Your task to perform on an android device: Search for a new hair product Image 0: 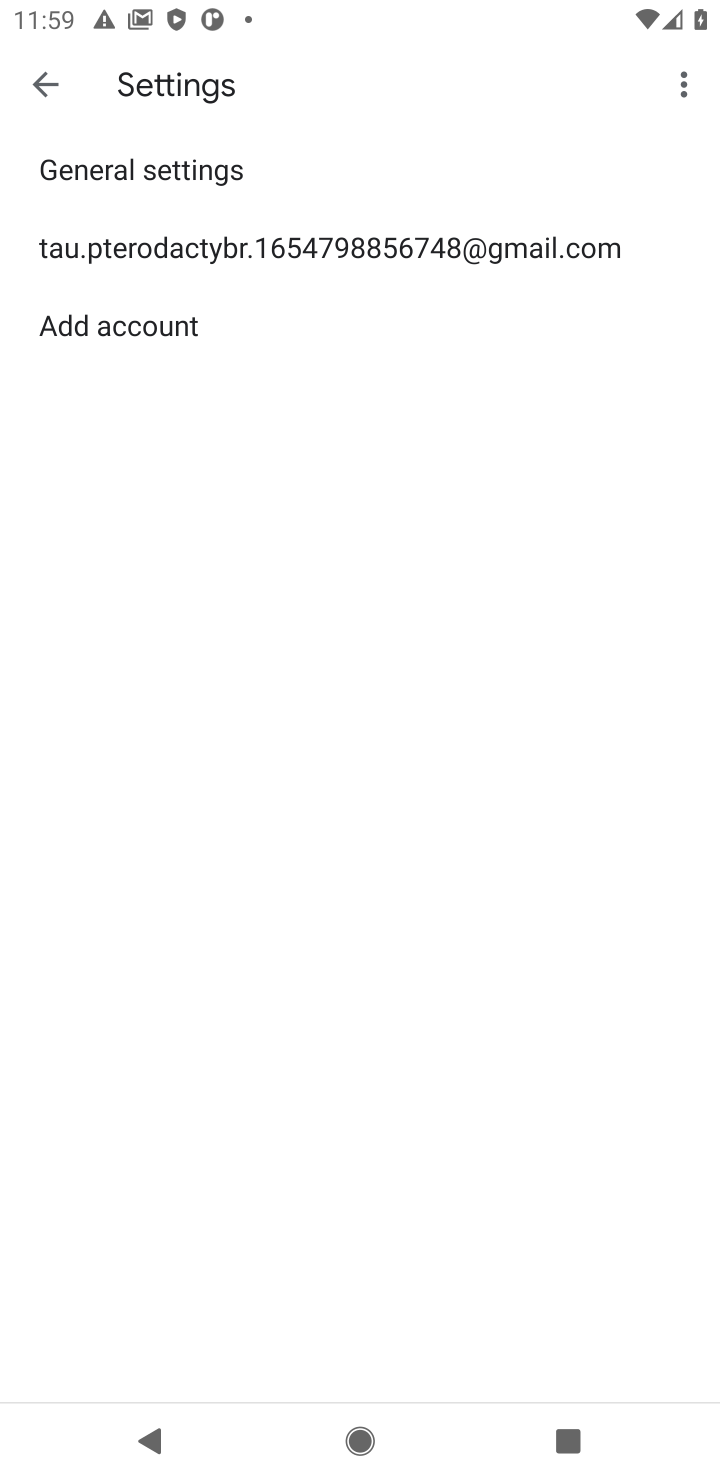
Step 0: press home button
Your task to perform on an android device: Search for a new hair product Image 1: 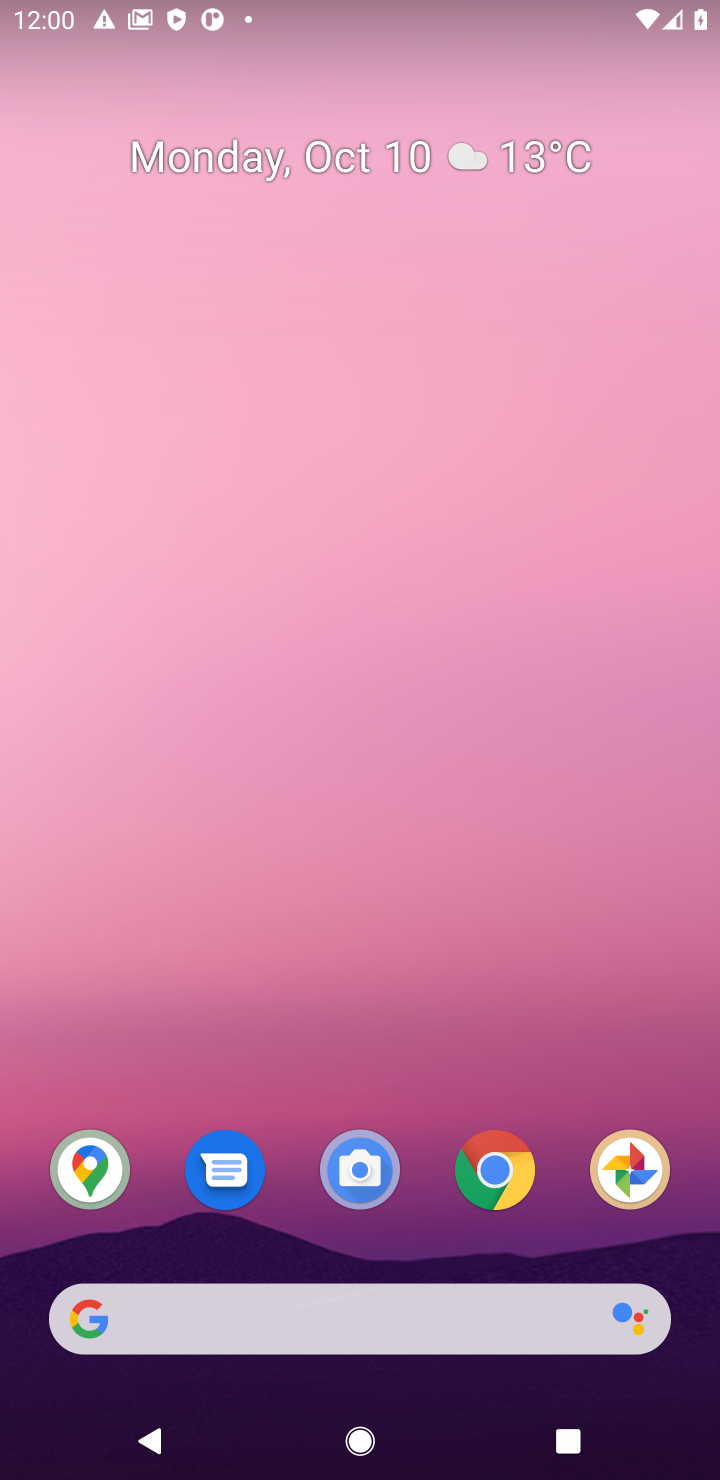
Step 1: click (491, 1167)
Your task to perform on an android device: Search for a new hair product Image 2: 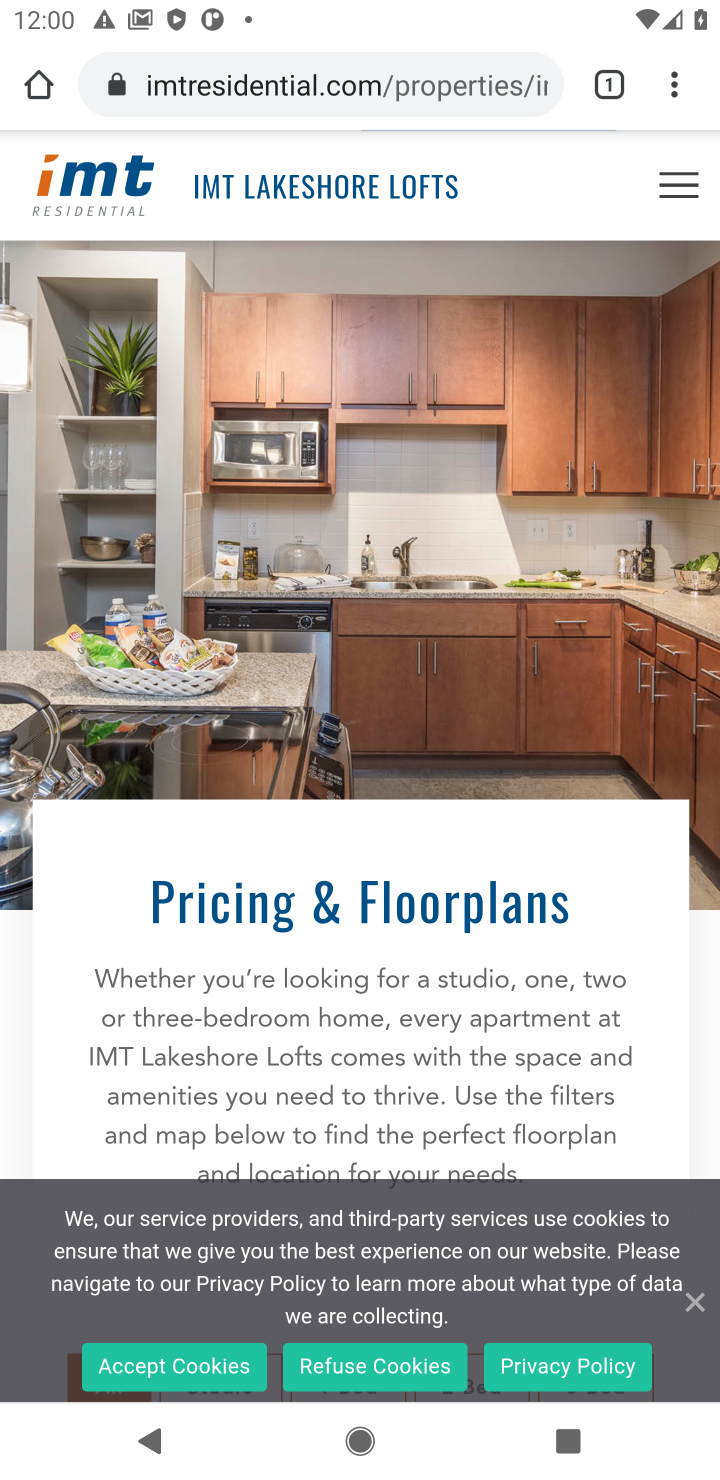
Step 2: click (502, 69)
Your task to perform on an android device: Search for a new hair product Image 3: 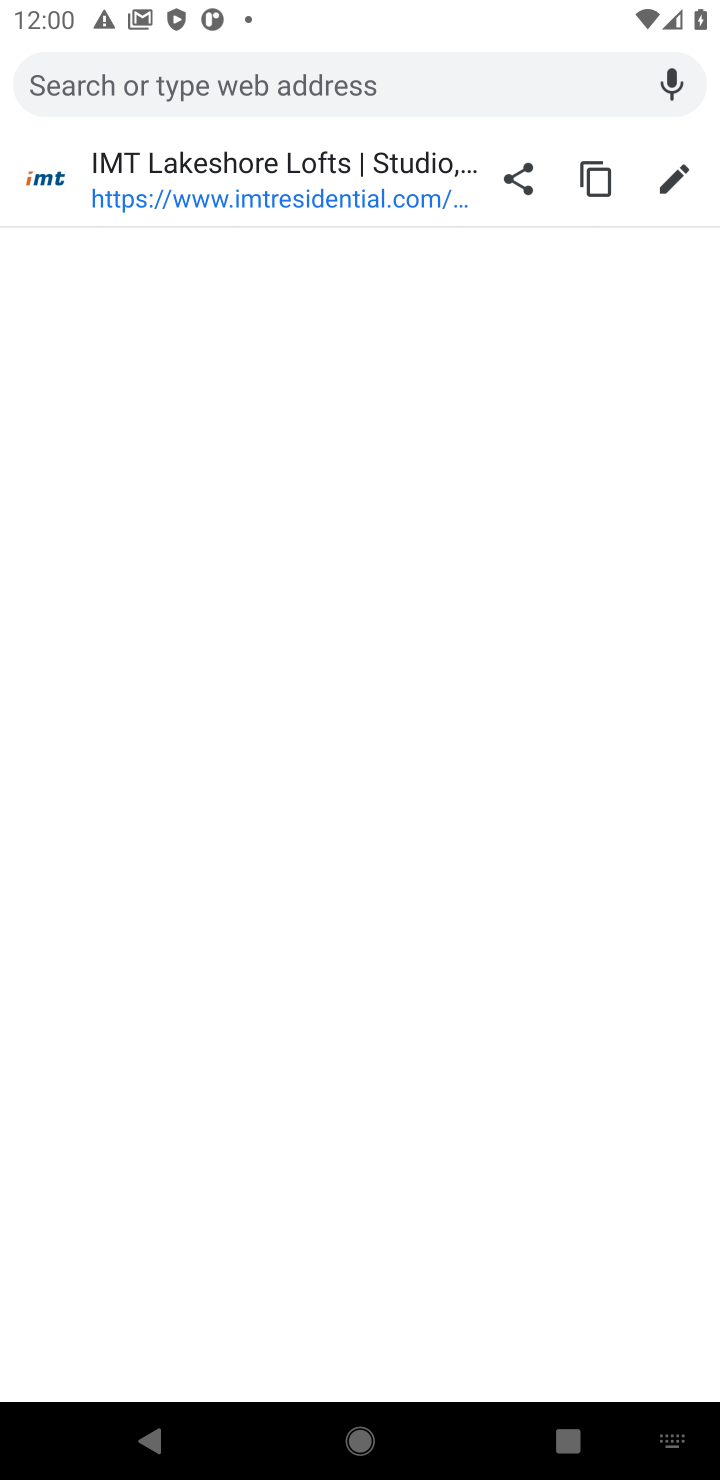
Step 3: type "new hair product"
Your task to perform on an android device: Search for a new hair product Image 4: 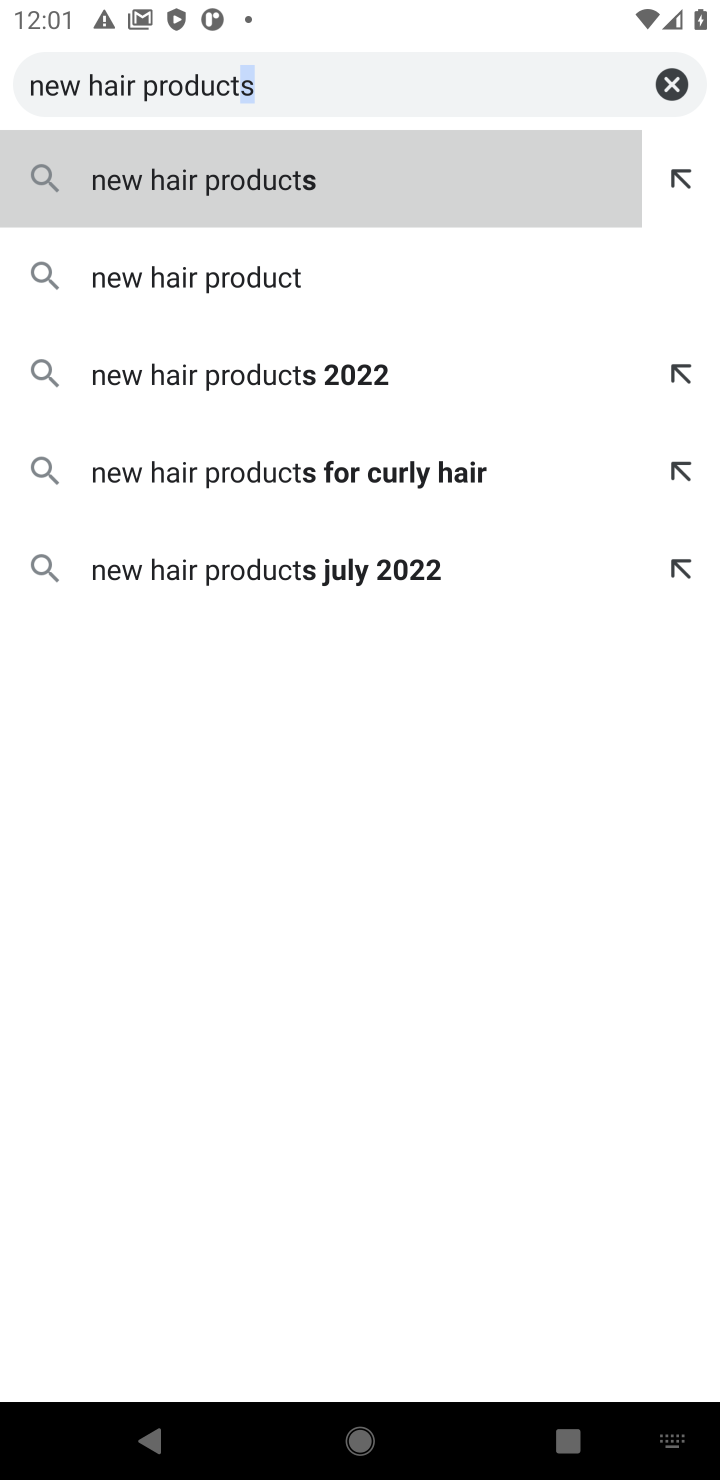
Step 4: click (206, 273)
Your task to perform on an android device: Search for a new hair product Image 5: 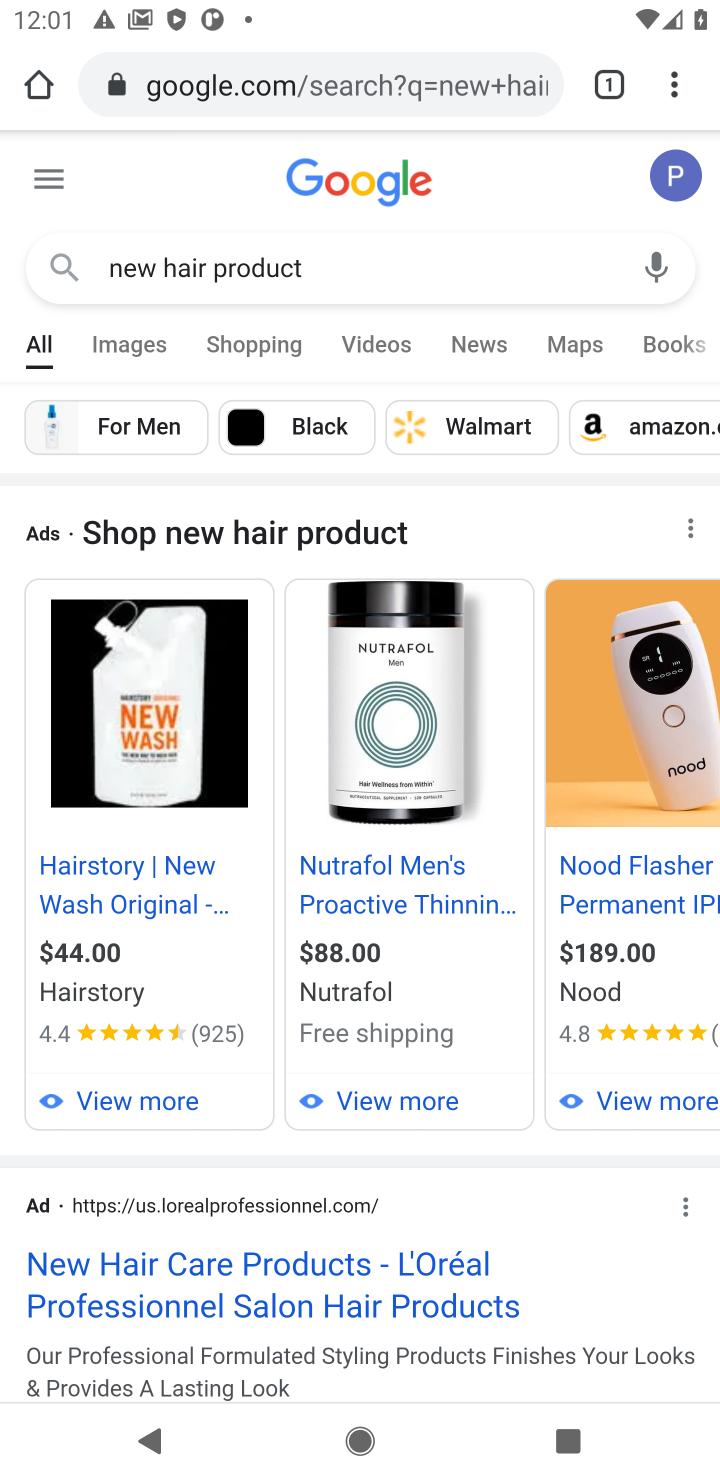
Step 5: task complete